Your task to perform on an android device: make emails show in primary in the gmail app Image 0: 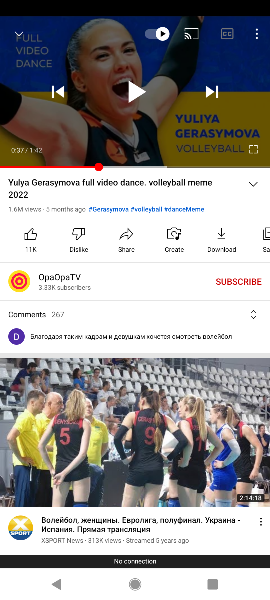
Step 0: press home button
Your task to perform on an android device: make emails show in primary in the gmail app Image 1: 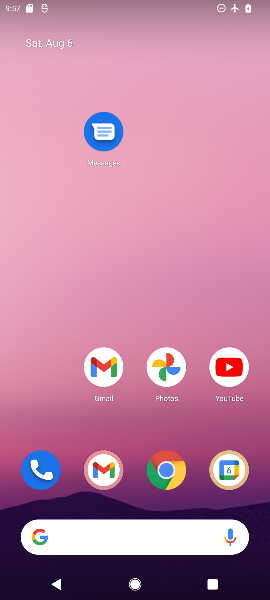
Step 1: drag from (106, 560) to (88, 0)
Your task to perform on an android device: make emails show in primary in the gmail app Image 2: 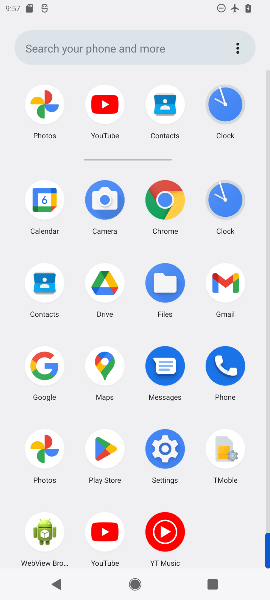
Step 2: click (223, 287)
Your task to perform on an android device: make emails show in primary in the gmail app Image 3: 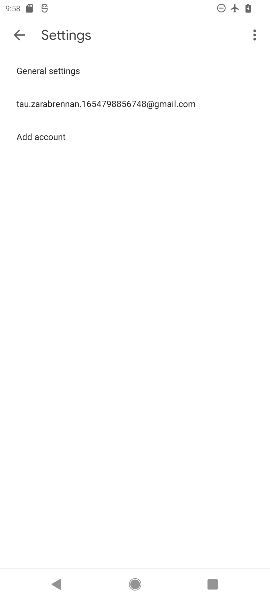
Step 3: click (69, 106)
Your task to perform on an android device: make emails show in primary in the gmail app Image 4: 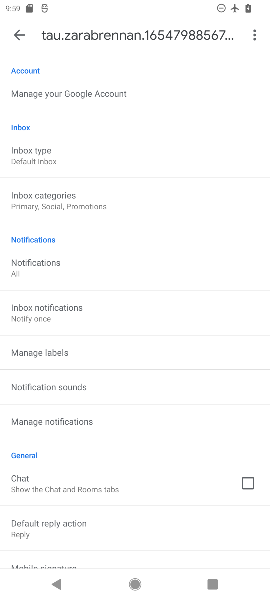
Step 4: task complete